Your task to perform on an android device: open chrome privacy settings Image 0: 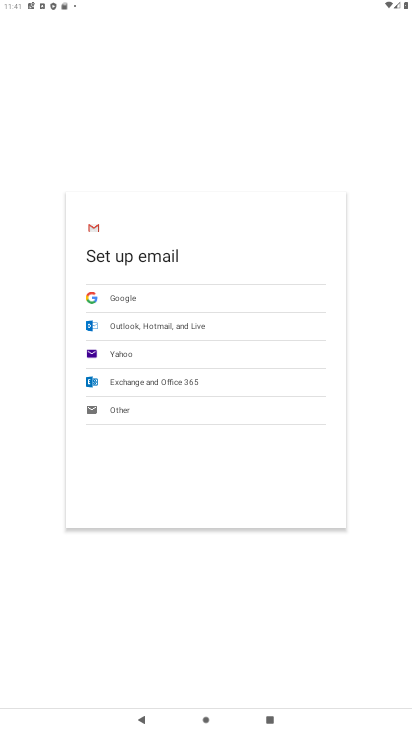
Step 0: press home button
Your task to perform on an android device: open chrome privacy settings Image 1: 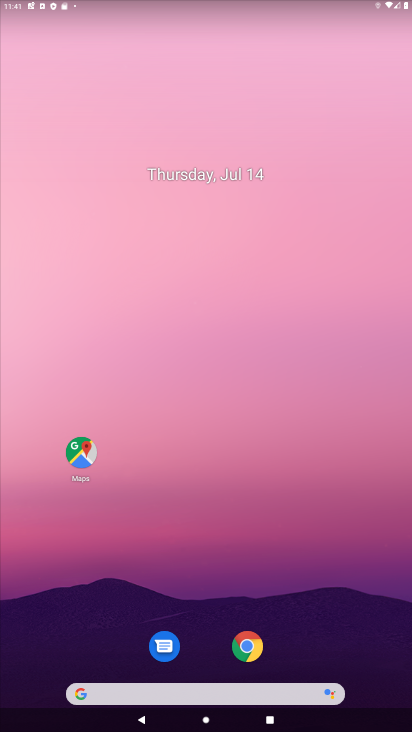
Step 1: click (244, 644)
Your task to perform on an android device: open chrome privacy settings Image 2: 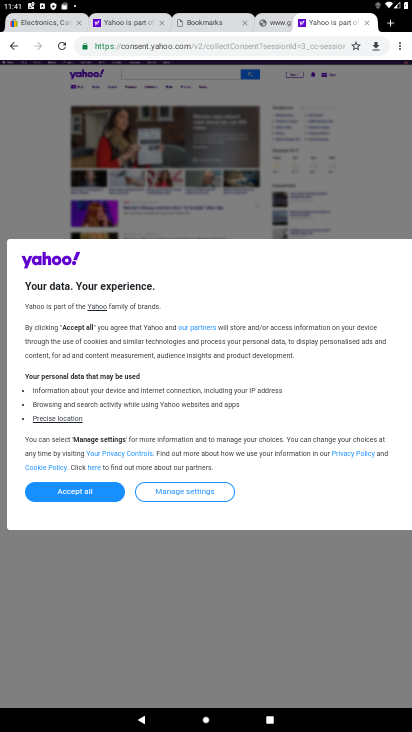
Step 2: click (397, 43)
Your task to perform on an android device: open chrome privacy settings Image 3: 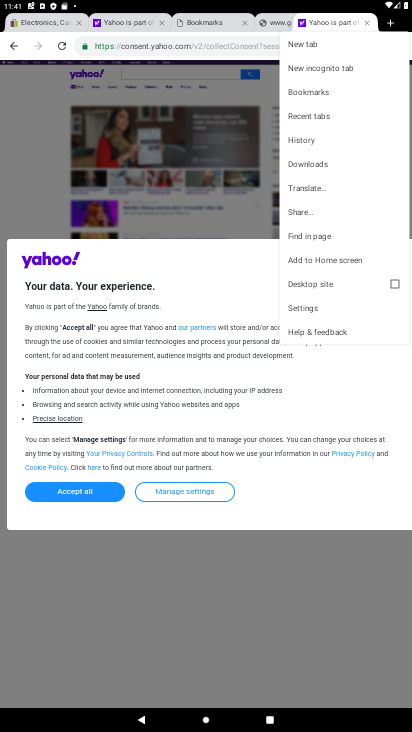
Step 3: click (304, 304)
Your task to perform on an android device: open chrome privacy settings Image 4: 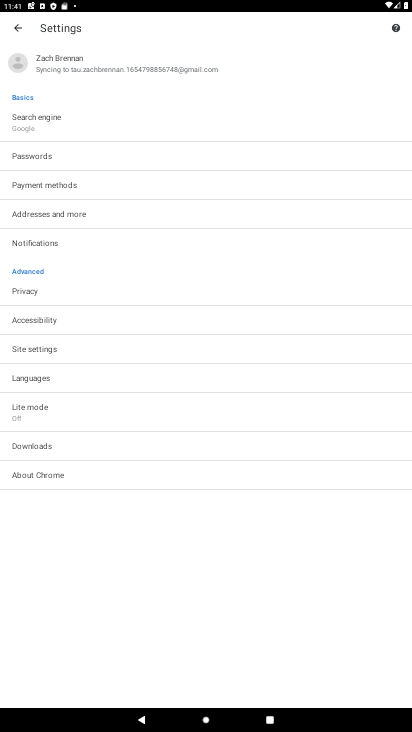
Step 4: click (26, 290)
Your task to perform on an android device: open chrome privacy settings Image 5: 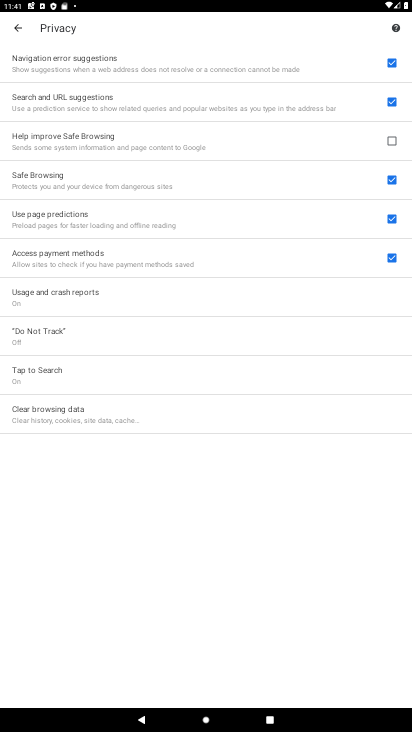
Step 5: task complete